Your task to perform on an android device: uninstall "Etsy: Buy & Sell Unique Items" Image 0: 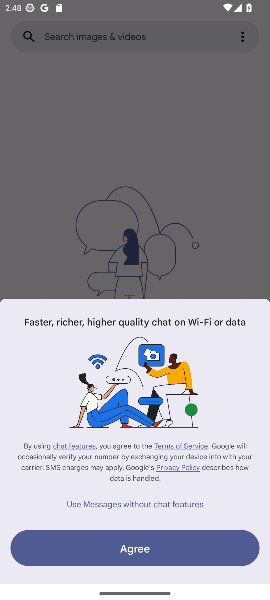
Step 0: press home button
Your task to perform on an android device: uninstall "Etsy: Buy & Sell Unique Items" Image 1: 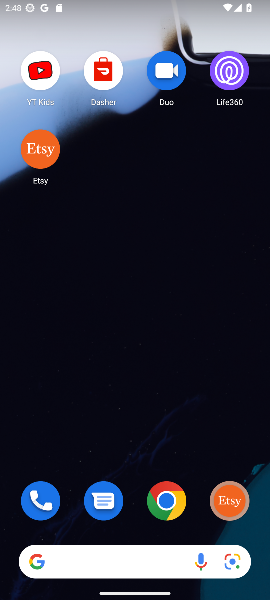
Step 1: drag from (127, 448) to (131, 42)
Your task to perform on an android device: uninstall "Etsy: Buy & Sell Unique Items" Image 2: 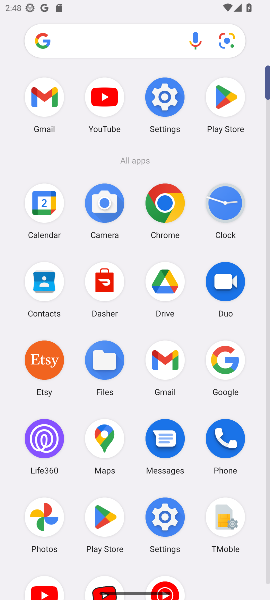
Step 2: click (231, 98)
Your task to perform on an android device: uninstall "Etsy: Buy & Sell Unique Items" Image 3: 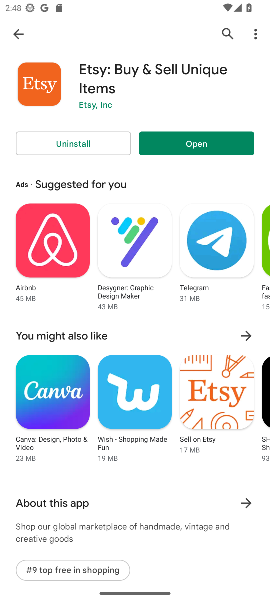
Step 3: click (222, 30)
Your task to perform on an android device: uninstall "Etsy: Buy & Sell Unique Items" Image 4: 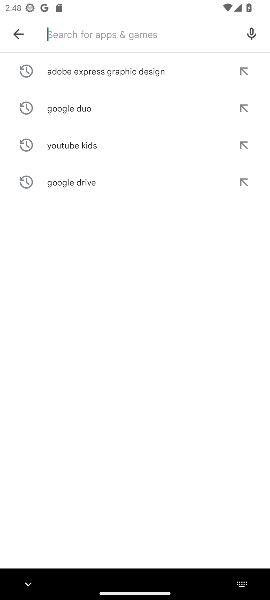
Step 4: type "Etsy: Buy & Sell Unique Items"
Your task to perform on an android device: uninstall "Etsy: Buy & Sell Unique Items" Image 5: 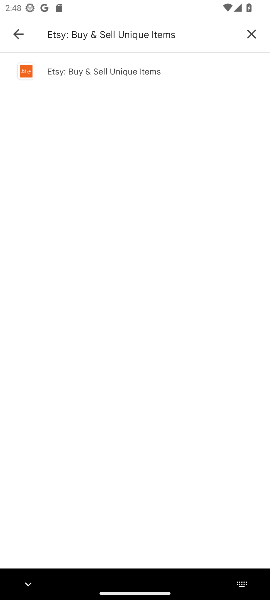
Step 5: click (100, 66)
Your task to perform on an android device: uninstall "Etsy: Buy & Sell Unique Items" Image 6: 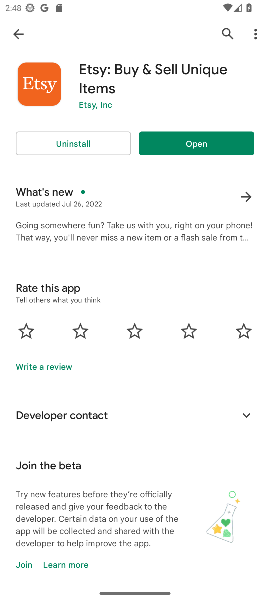
Step 6: click (57, 141)
Your task to perform on an android device: uninstall "Etsy: Buy & Sell Unique Items" Image 7: 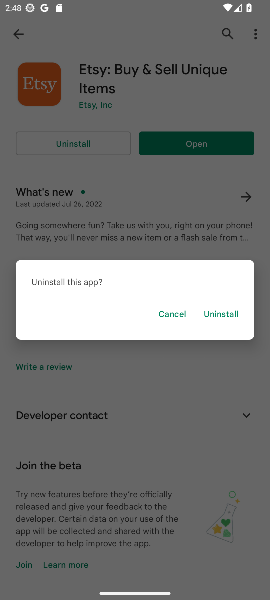
Step 7: click (225, 314)
Your task to perform on an android device: uninstall "Etsy: Buy & Sell Unique Items" Image 8: 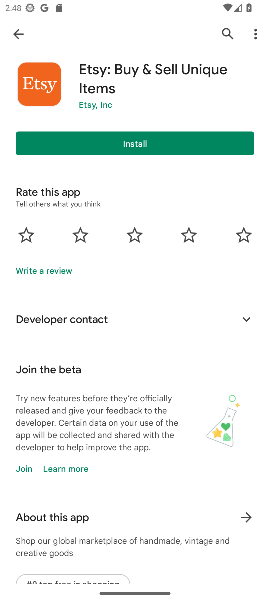
Step 8: task complete